Your task to perform on an android device: open chrome and create a bookmark for the current page Image 0: 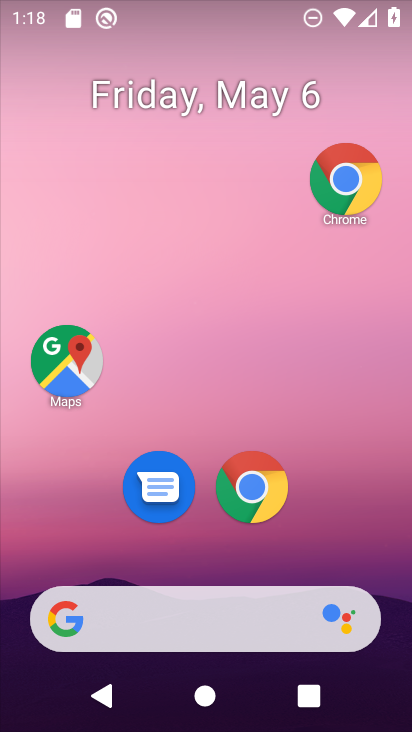
Step 0: click (278, 498)
Your task to perform on an android device: open chrome and create a bookmark for the current page Image 1: 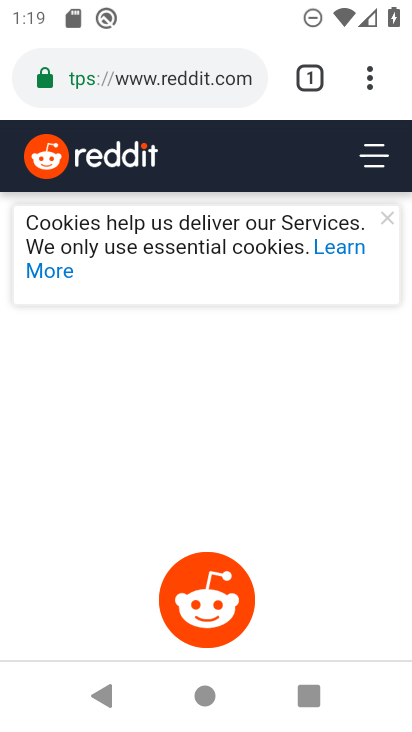
Step 1: click (365, 88)
Your task to perform on an android device: open chrome and create a bookmark for the current page Image 2: 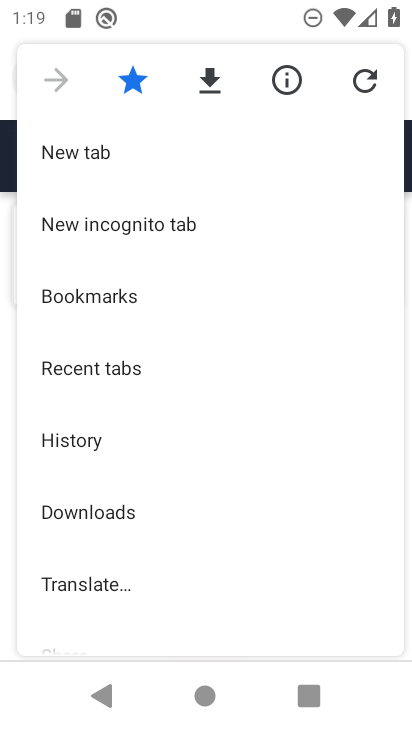
Step 2: click (51, 89)
Your task to perform on an android device: open chrome and create a bookmark for the current page Image 3: 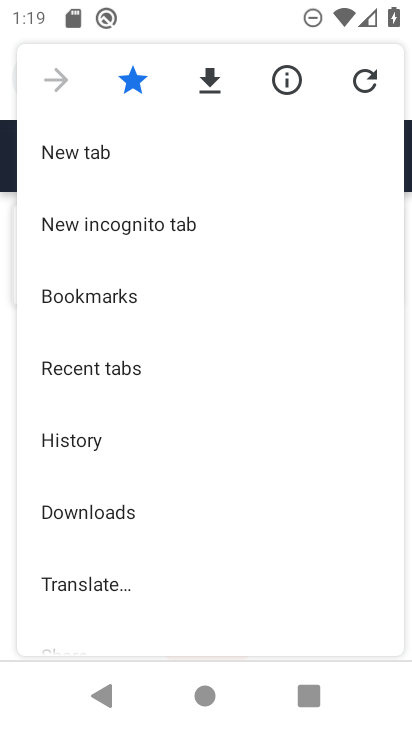
Step 3: click (9, 81)
Your task to perform on an android device: open chrome and create a bookmark for the current page Image 4: 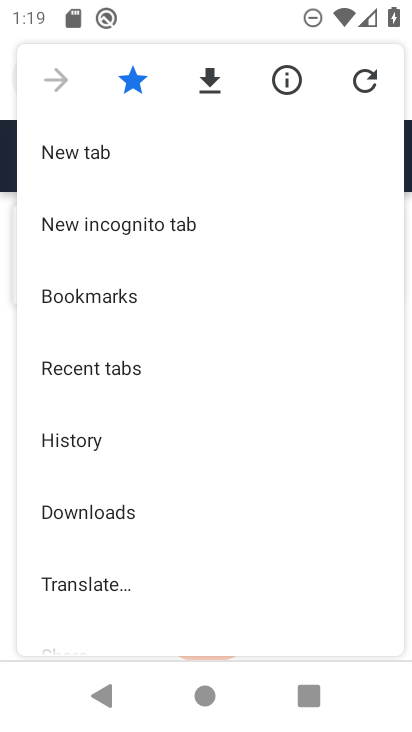
Step 4: click (8, 97)
Your task to perform on an android device: open chrome and create a bookmark for the current page Image 5: 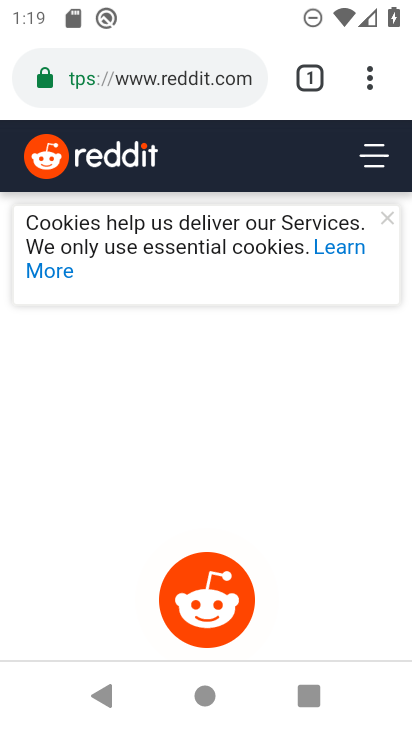
Step 5: click (221, 91)
Your task to perform on an android device: open chrome and create a bookmark for the current page Image 6: 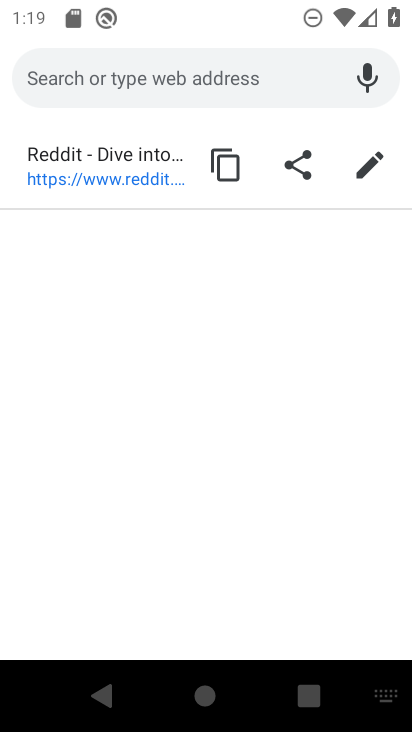
Step 6: type "google.com"
Your task to perform on an android device: open chrome and create a bookmark for the current page Image 7: 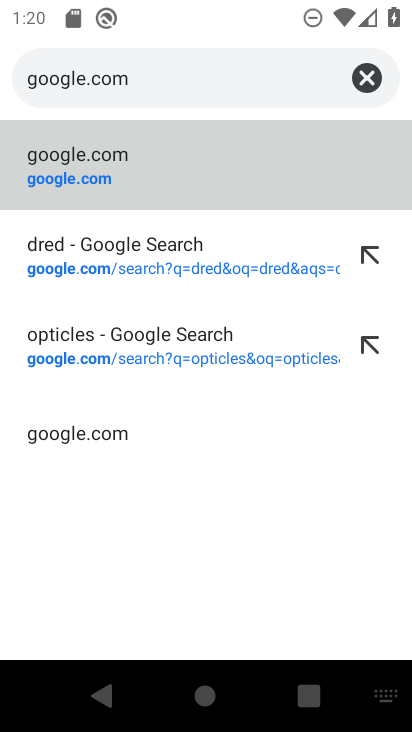
Step 7: click (89, 179)
Your task to perform on an android device: open chrome and create a bookmark for the current page Image 8: 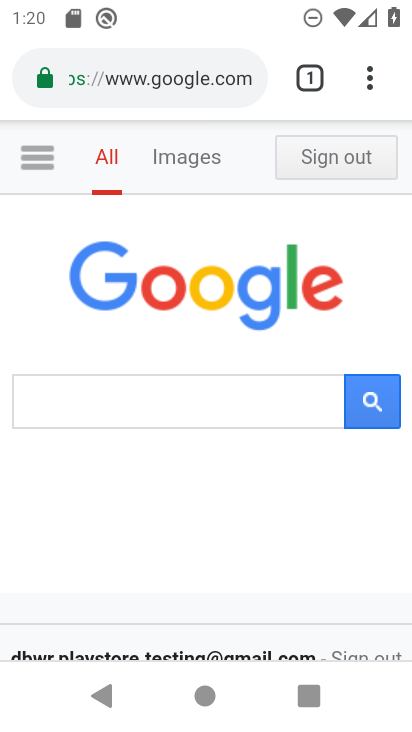
Step 8: click (369, 78)
Your task to perform on an android device: open chrome and create a bookmark for the current page Image 9: 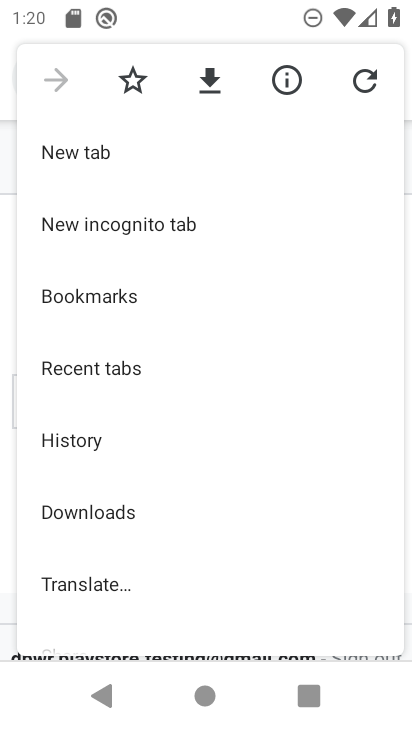
Step 9: click (139, 86)
Your task to perform on an android device: open chrome and create a bookmark for the current page Image 10: 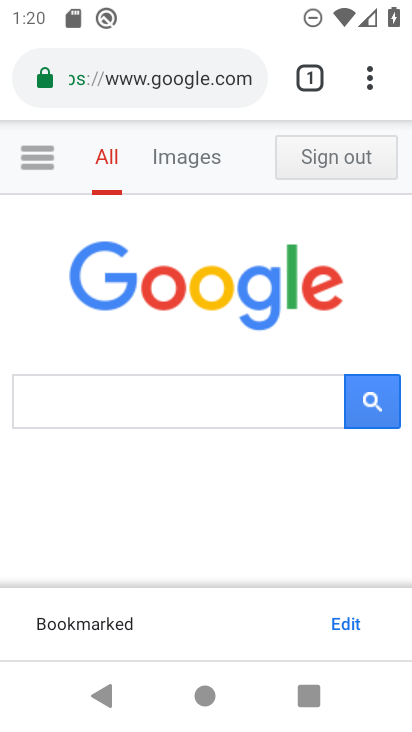
Step 10: task complete